Your task to perform on an android device: Show me recent news Image 0: 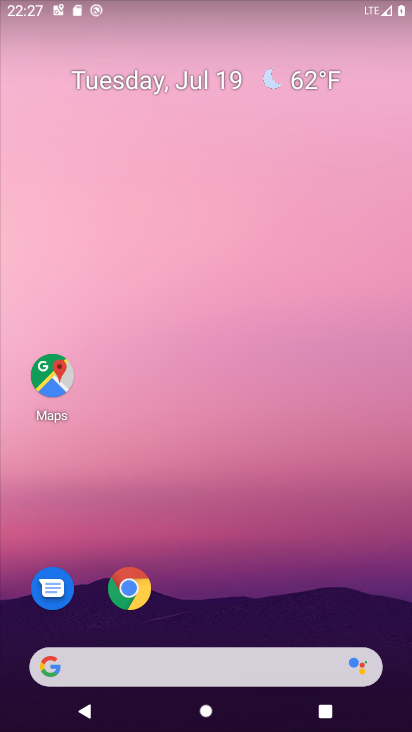
Step 0: drag from (201, 453) to (201, 173)
Your task to perform on an android device: Show me recent news Image 1: 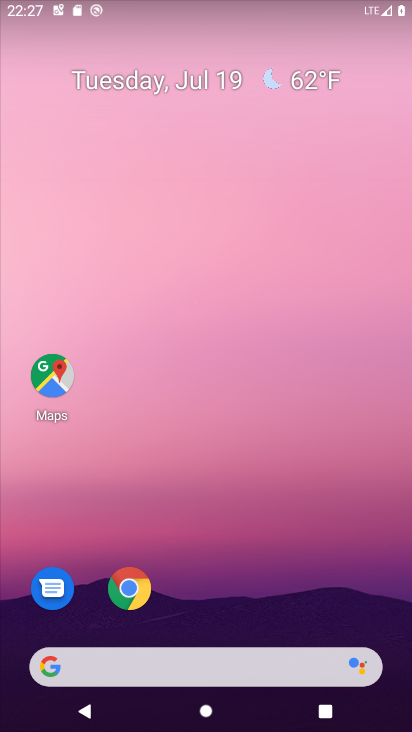
Step 1: drag from (202, 613) to (229, 10)
Your task to perform on an android device: Show me recent news Image 2: 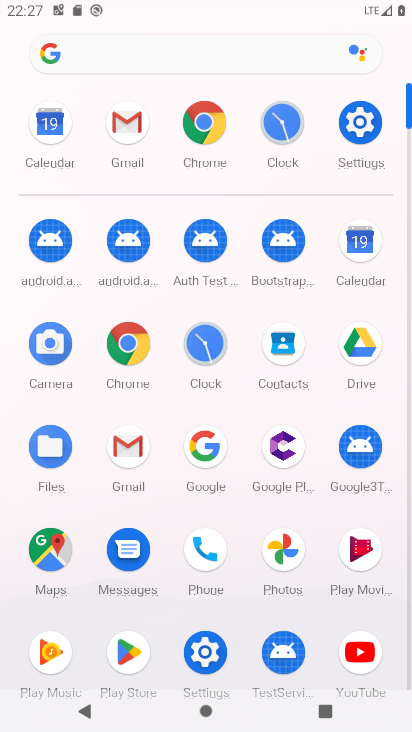
Step 2: click (195, 441)
Your task to perform on an android device: Show me recent news Image 3: 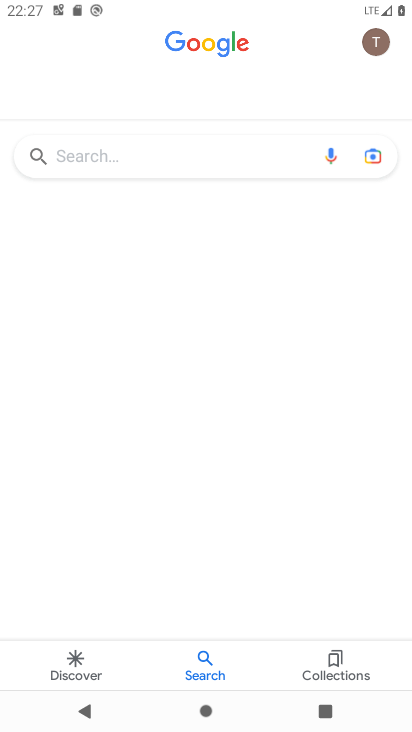
Step 3: click (77, 158)
Your task to perform on an android device: Show me recent news Image 4: 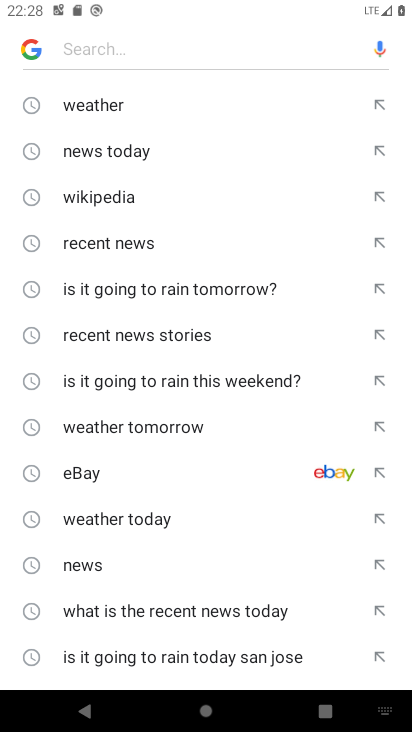
Step 4: click (106, 243)
Your task to perform on an android device: Show me recent news Image 5: 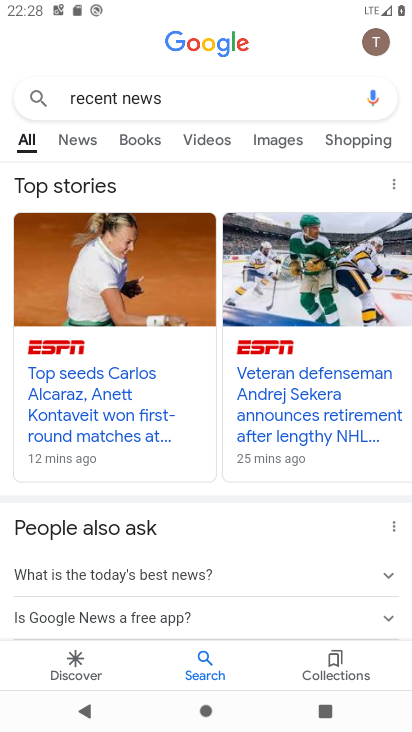
Step 5: task complete